Your task to perform on an android device: Open accessibility settings Image 0: 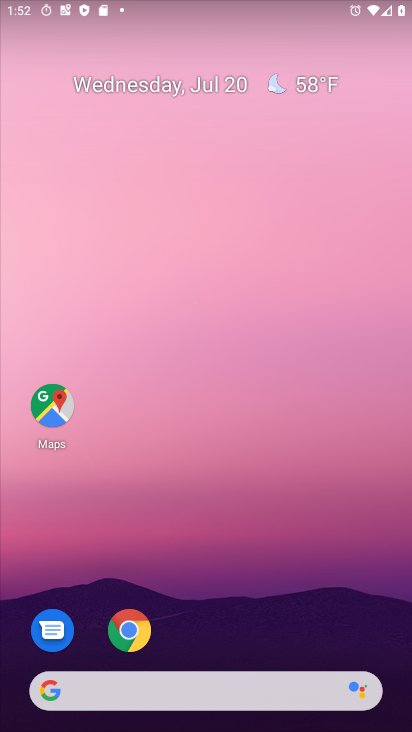
Step 0: drag from (128, 693) to (284, 84)
Your task to perform on an android device: Open accessibility settings Image 1: 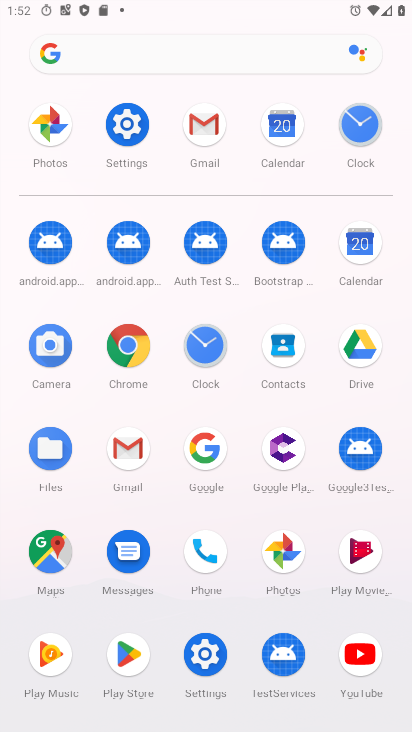
Step 1: click (127, 121)
Your task to perform on an android device: Open accessibility settings Image 2: 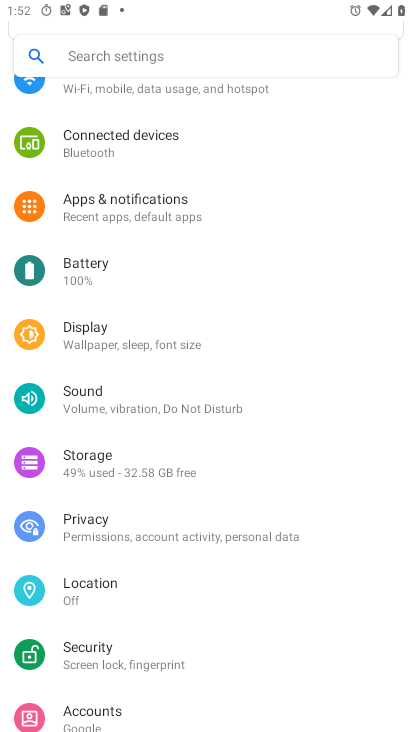
Step 2: drag from (292, 639) to (341, 230)
Your task to perform on an android device: Open accessibility settings Image 3: 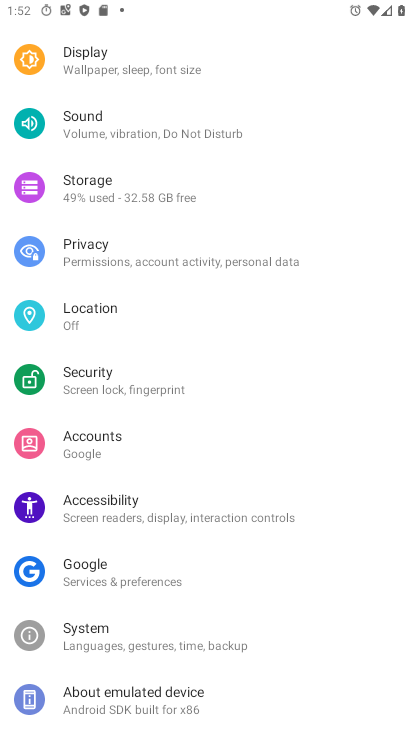
Step 3: click (110, 504)
Your task to perform on an android device: Open accessibility settings Image 4: 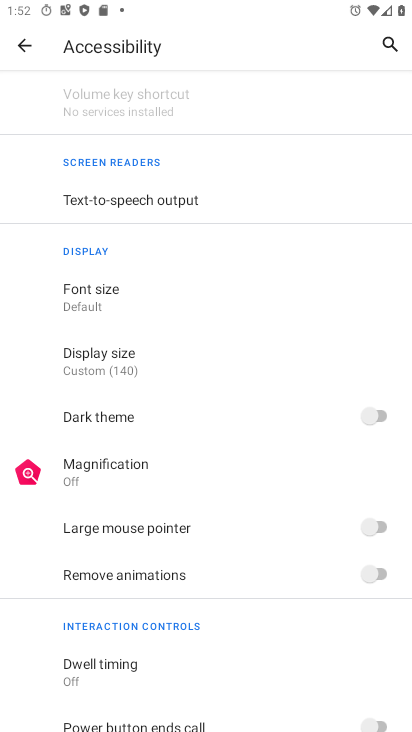
Step 4: task complete